Your task to perform on an android device: toggle show notifications on the lock screen Image 0: 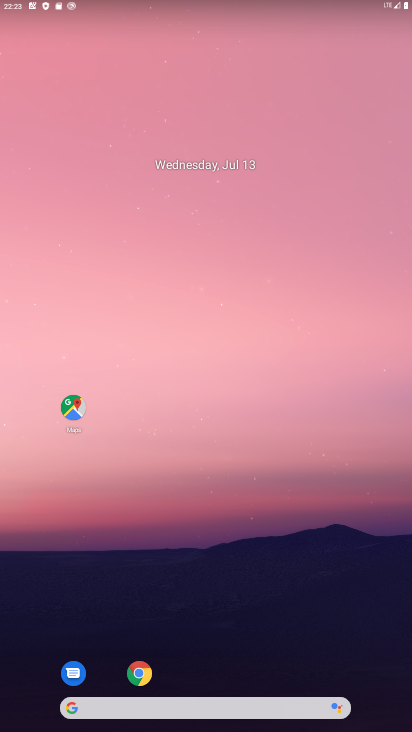
Step 0: drag from (213, 575) to (249, 143)
Your task to perform on an android device: toggle show notifications on the lock screen Image 1: 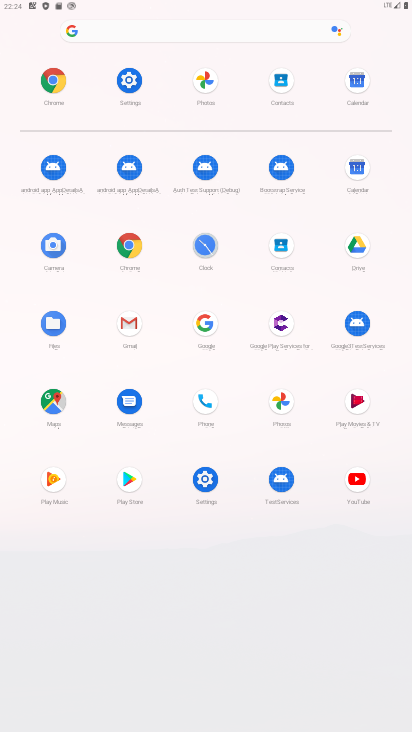
Step 1: click (196, 471)
Your task to perform on an android device: toggle show notifications on the lock screen Image 2: 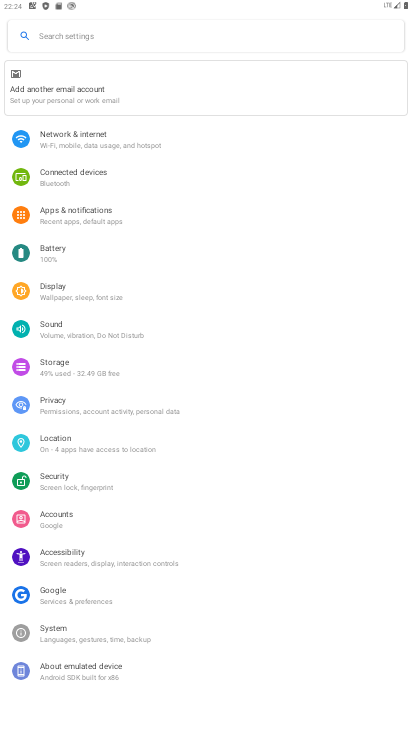
Step 2: click (91, 209)
Your task to perform on an android device: toggle show notifications on the lock screen Image 3: 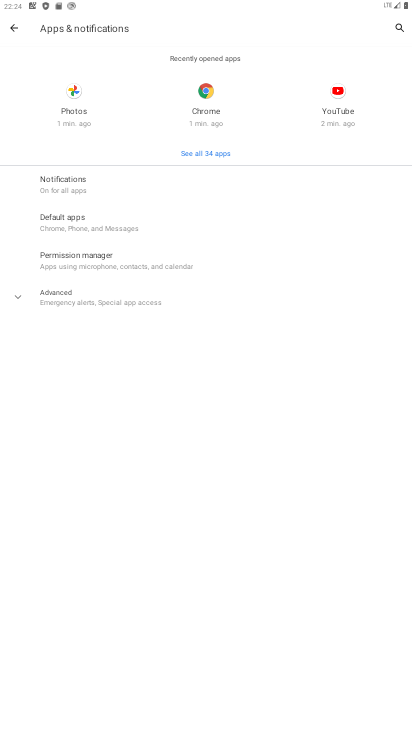
Step 3: click (93, 186)
Your task to perform on an android device: toggle show notifications on the lock screen Image 4: 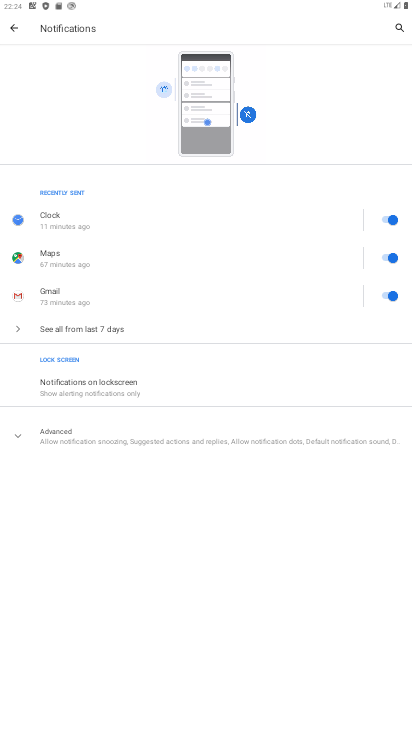
Step 4: click (99, 383)
Your task to perform on an android device: toggle show notifications on the lock screen Image 5: 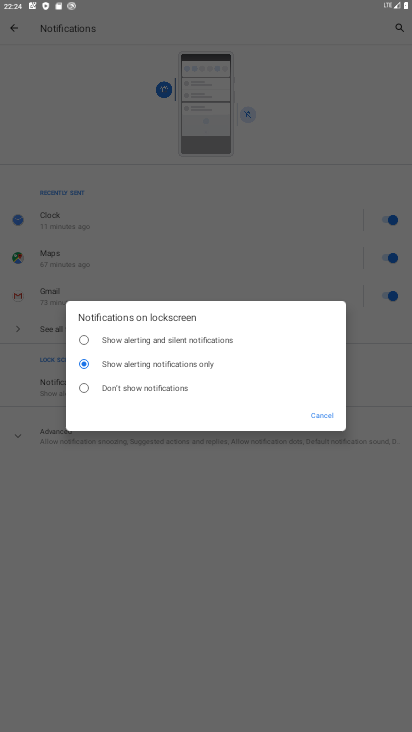
Step 5: click (131, 342)
Your task to perform on an android device: toggle show notifications on the lock screen Image 6: 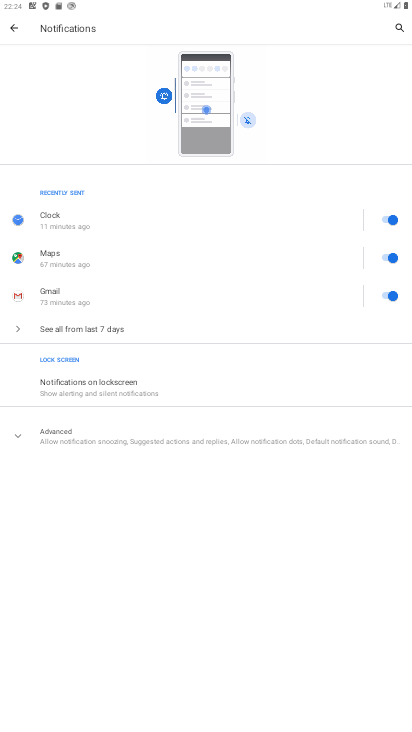
Step 6: task complete